Your task to perform on an android device: turn on improve location accuracy Image 0: 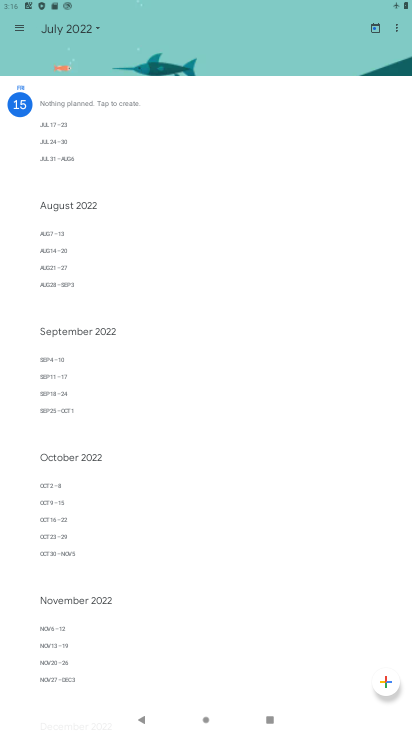
Step 0: press home button
Your task to perform on an android device: turn on improve location accuracy Image 1: 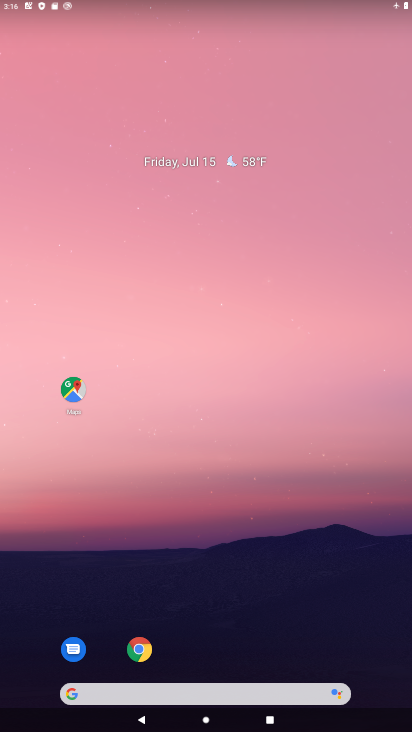
Step 1: drag from (232, 653) to (235, 118)
Your task to perform on an android device: turn on improve location accuracy Image 2: 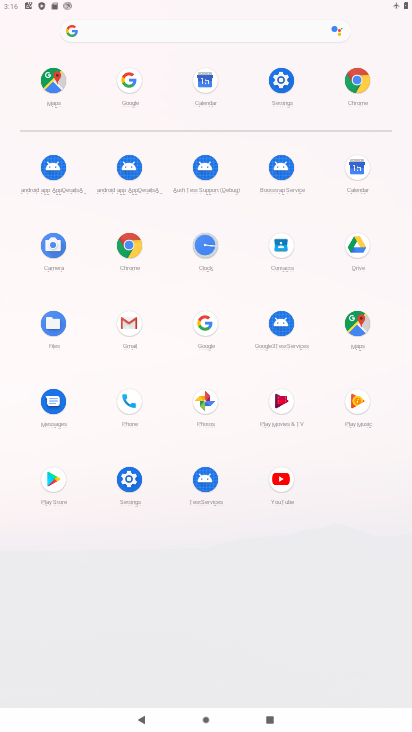
Step 2: click (284, 75)
Your task to perform on an android device: turn on improve location accuracy Image 3: 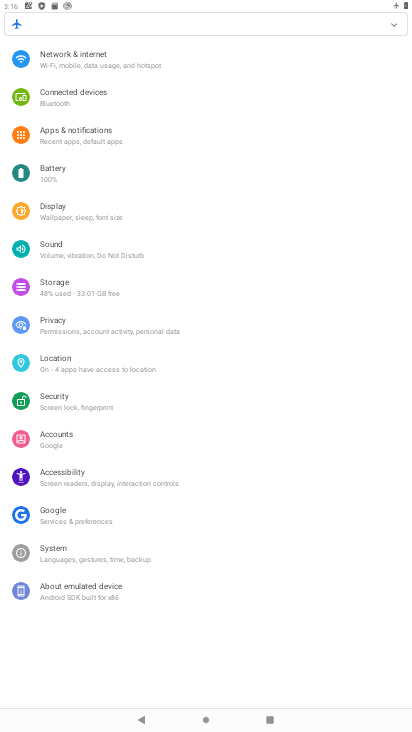
Step 3: click (56, 360)
Your task to perform on an android device: turn on improve location accuracy Image 4: 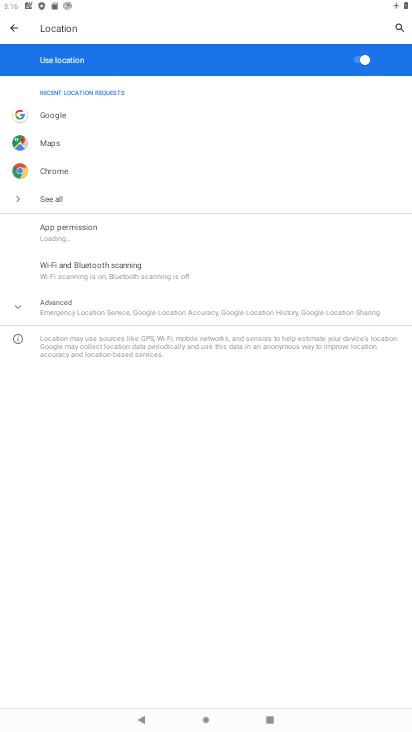
Step 4: click (68, 299)
Your task to perform on an android device: turn on improve location accuracy Image 5: 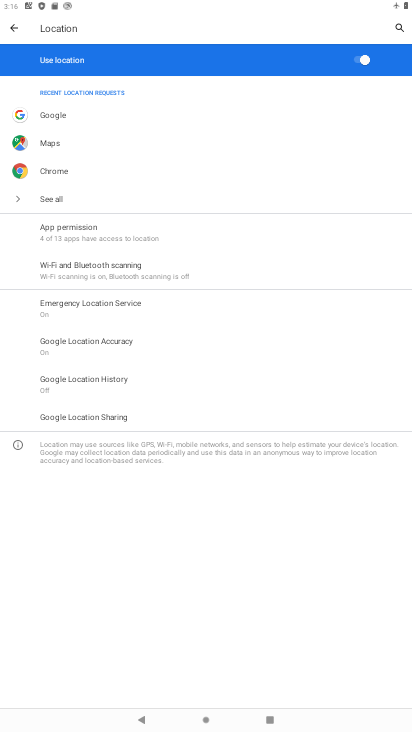
Step 5: click (112, 337)
Your task to perform on an android device: turn on improve location accuracy Image 6: 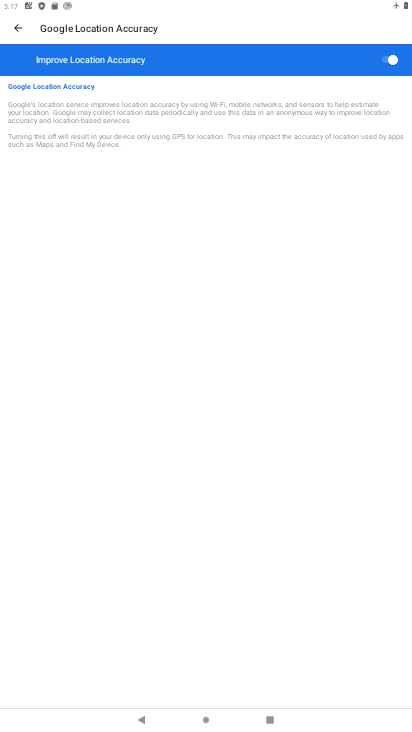
Step 6: task complete